Your task to perform on an android device: Open internet settings Image 0: 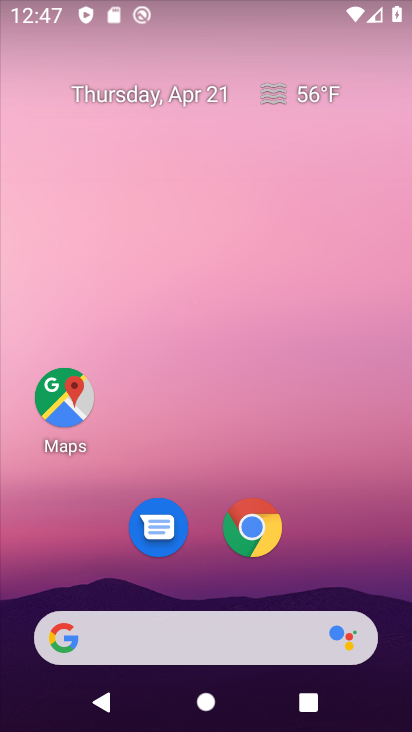
Step 0: drag from (189, 552) to (231, 14)
Your task to perform on an android device: Open internet settings Image 1: 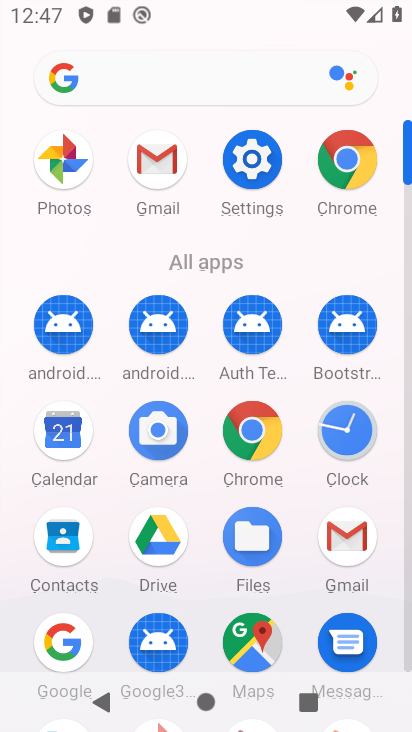
Step 1: click (247, 167)
Your task to perform on an android device: Open internet settings Image 2: 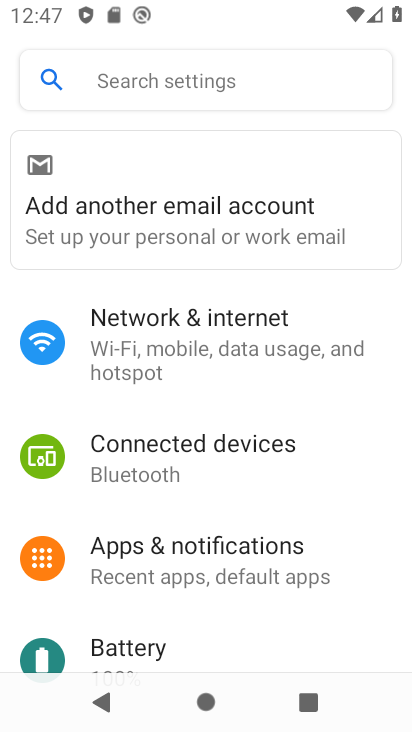
Step 2: click (211, 318)
Your task to perform on an android device: Open internet settings Image 3: 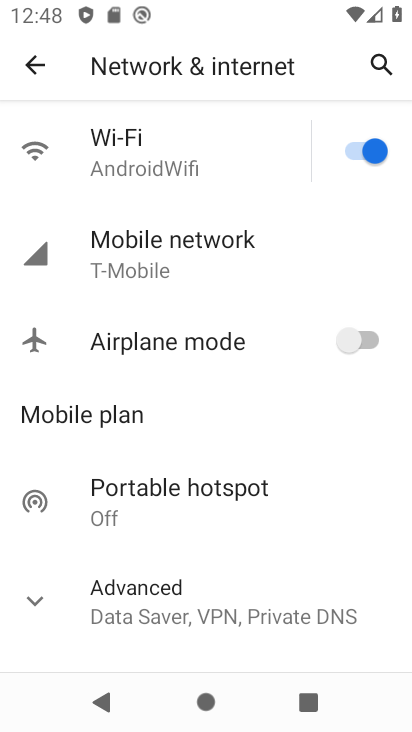
Step 3: task complete